Your task to perform on an android device: Search for asus zenbook on newegg, select the first entry, and add it to the cart. Image 0: 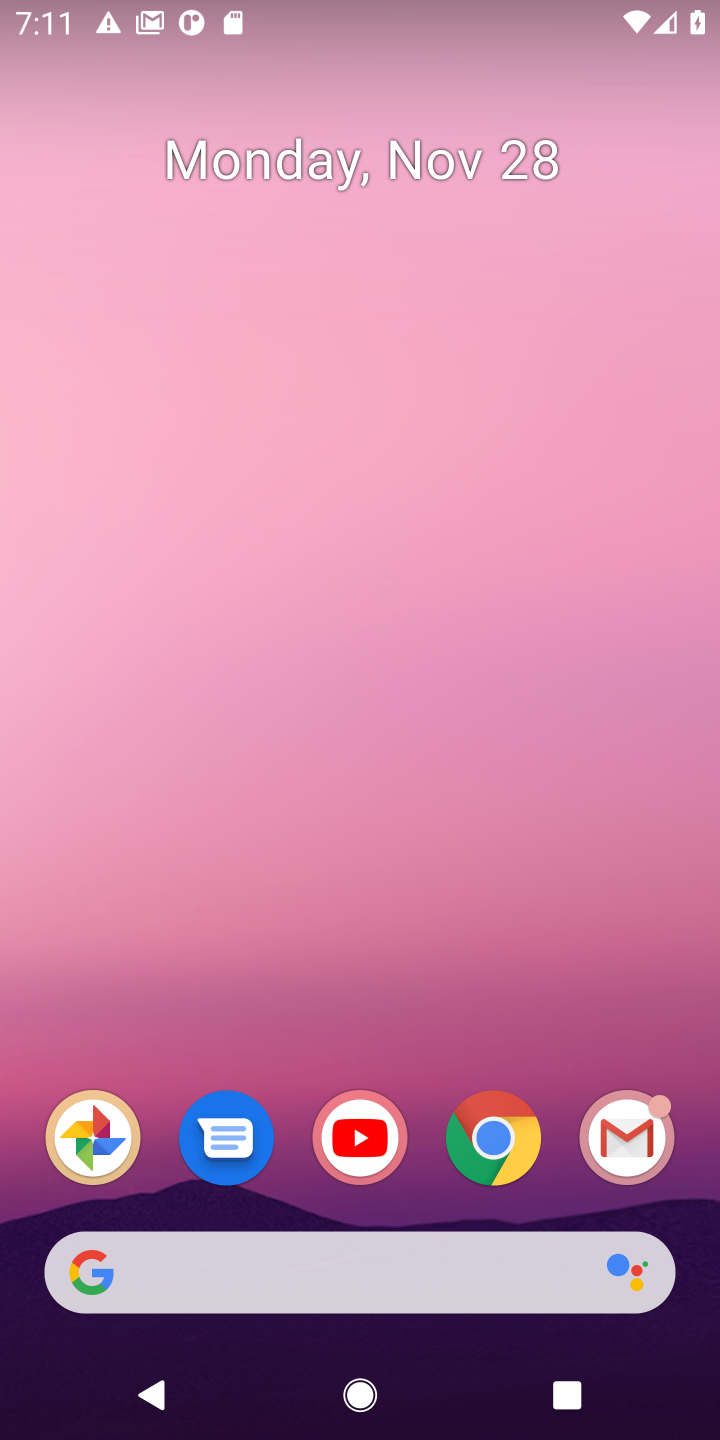
Step 0: click (483, 1146)
Your task to perform on an android device: Search for asus zenbook on newegg, select the first entry, and add it to the cart. Image 1: 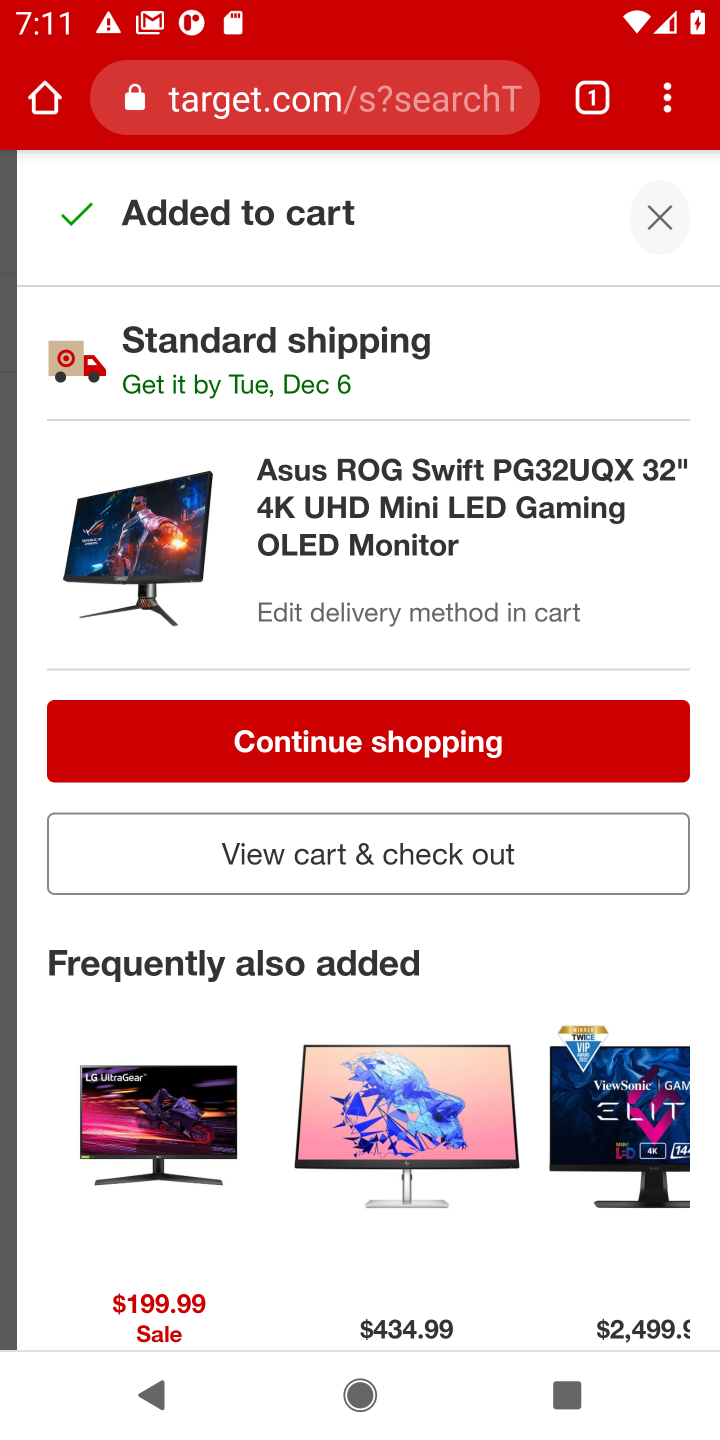
Step 1: click (262, 104)
Your task to perform on an android device: Search for asus zenbook on newegg, select the first entry, and add it to the cart. Image 2: 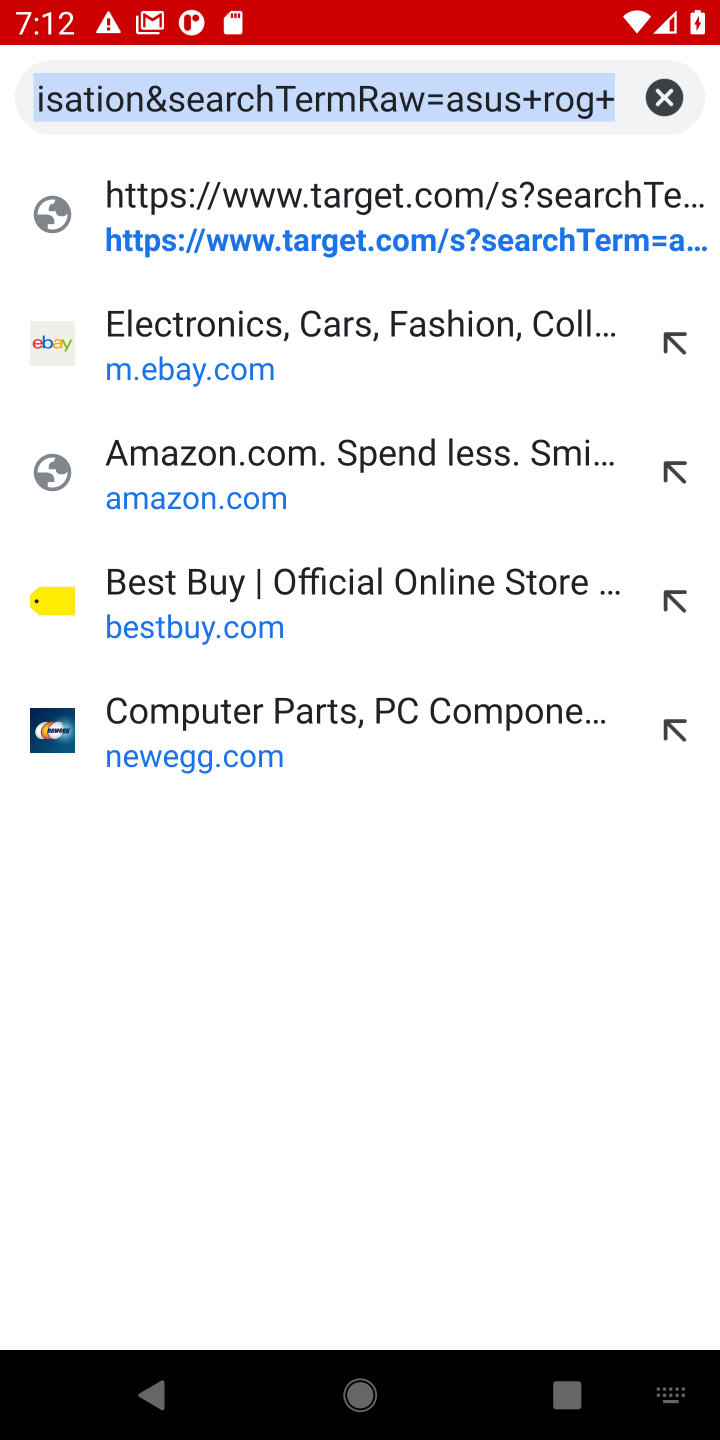
Step 2: click (156, 749)
Your task to perform on an android device: Search for asus zenbook on newegg, select the first entry, and add it to the cart. Image 3: 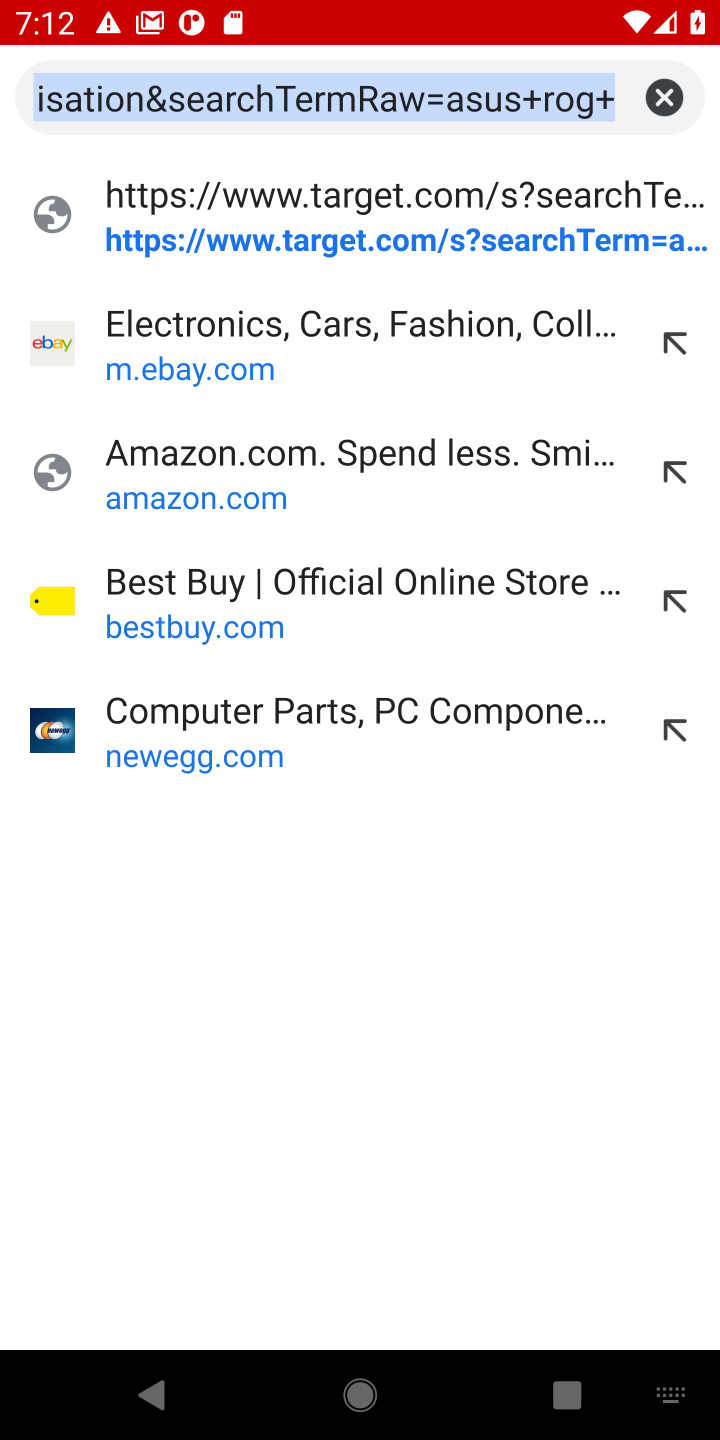
Step 3: click (125, 758)
Your task to perform on an android device: Search for asus zenbook on newegg, select the first entry, and add it to the cart. Image 4: 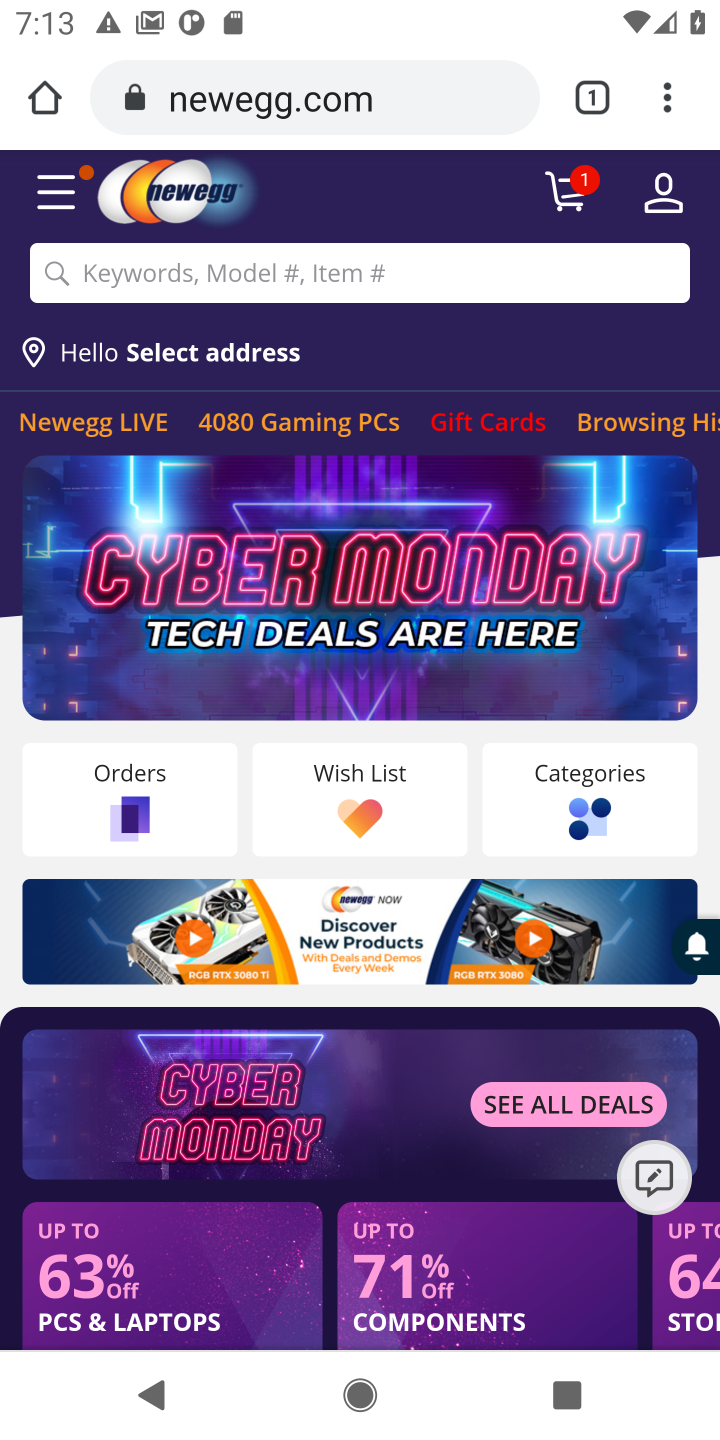
Step 4: click (155, 272)
Your task to perform on an android device: Search for asus zenbook on newegg, select the first entry, and add it to the cart. Image 5: 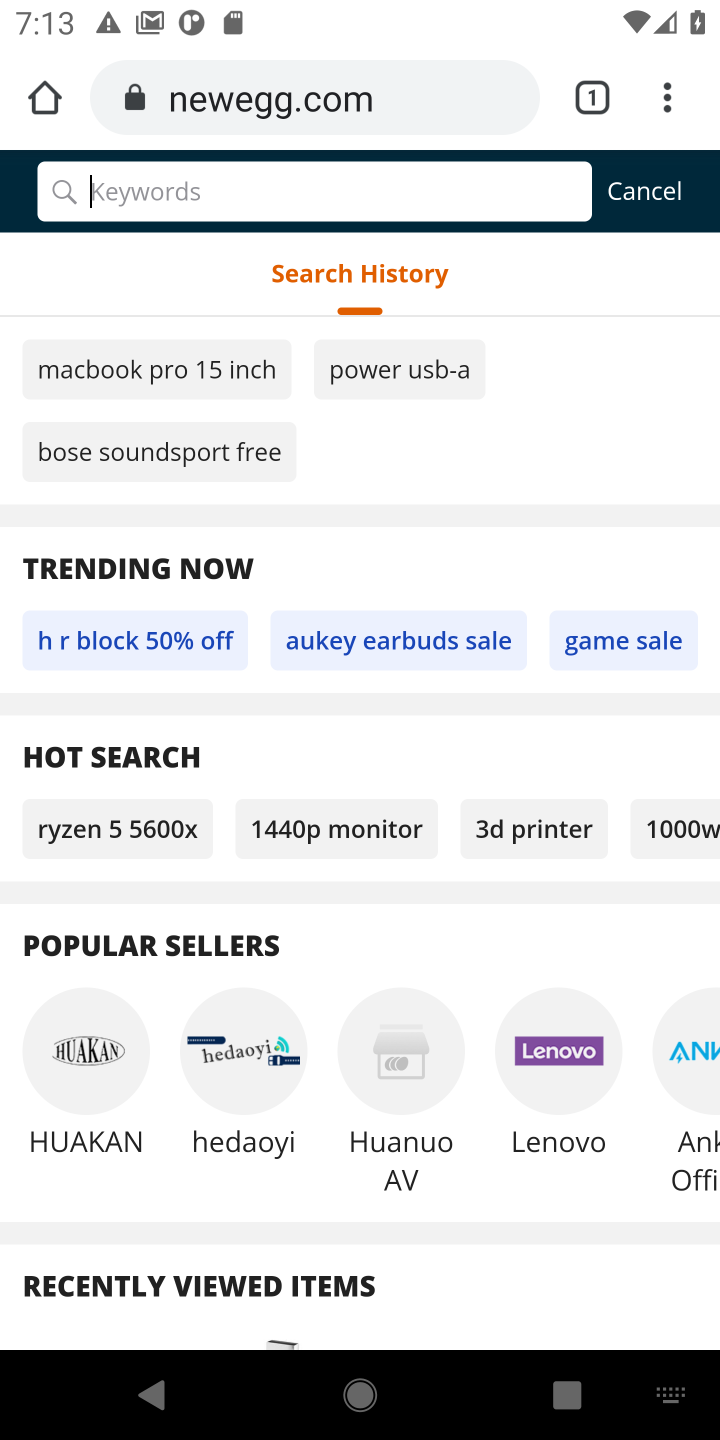
Step 5: type "asus zenbook "
Your task to perform on an android device: Search for asus zenbook on newegg, select the first entry, and add it to the cart. Image 6: 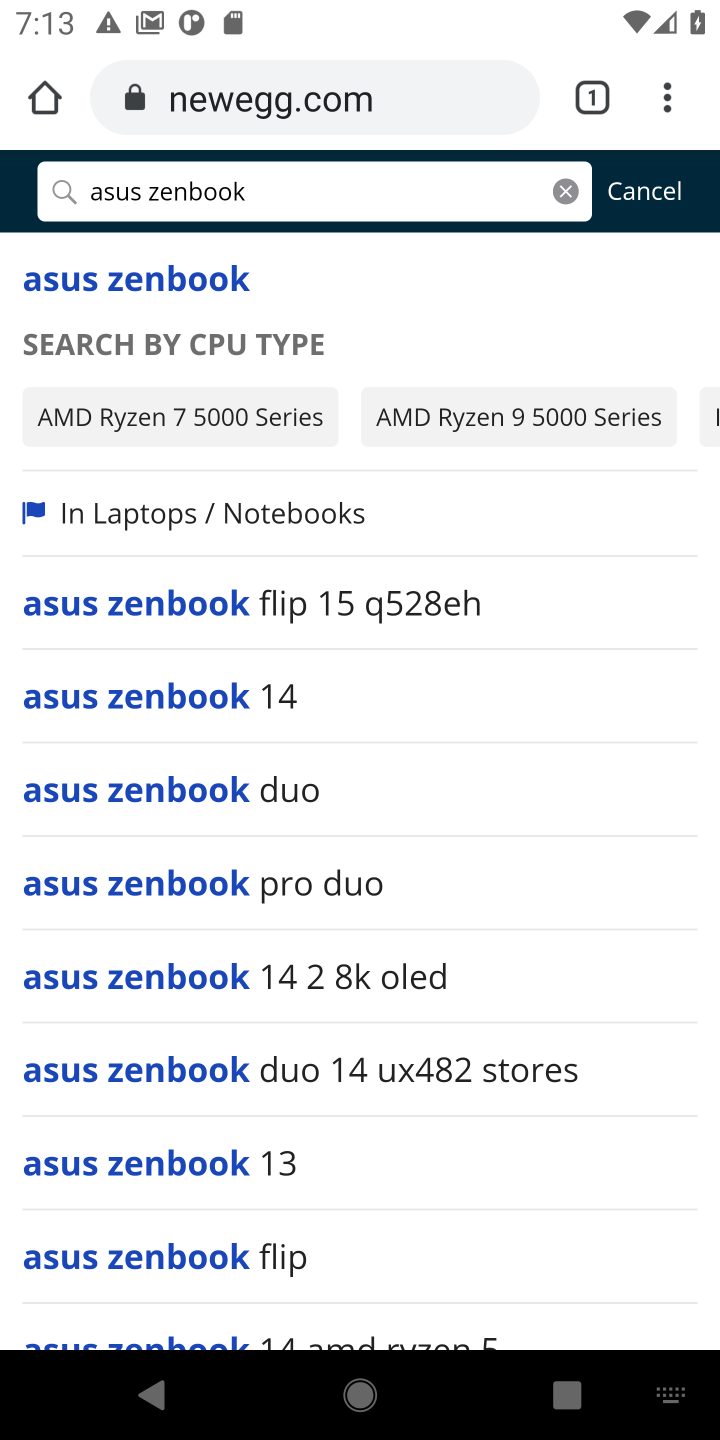
Step 6: click (80, 290)
Your task to perform on an android device: Search for asus zenbook on newegg, select the first entry, and add it to the cart. Image 7: 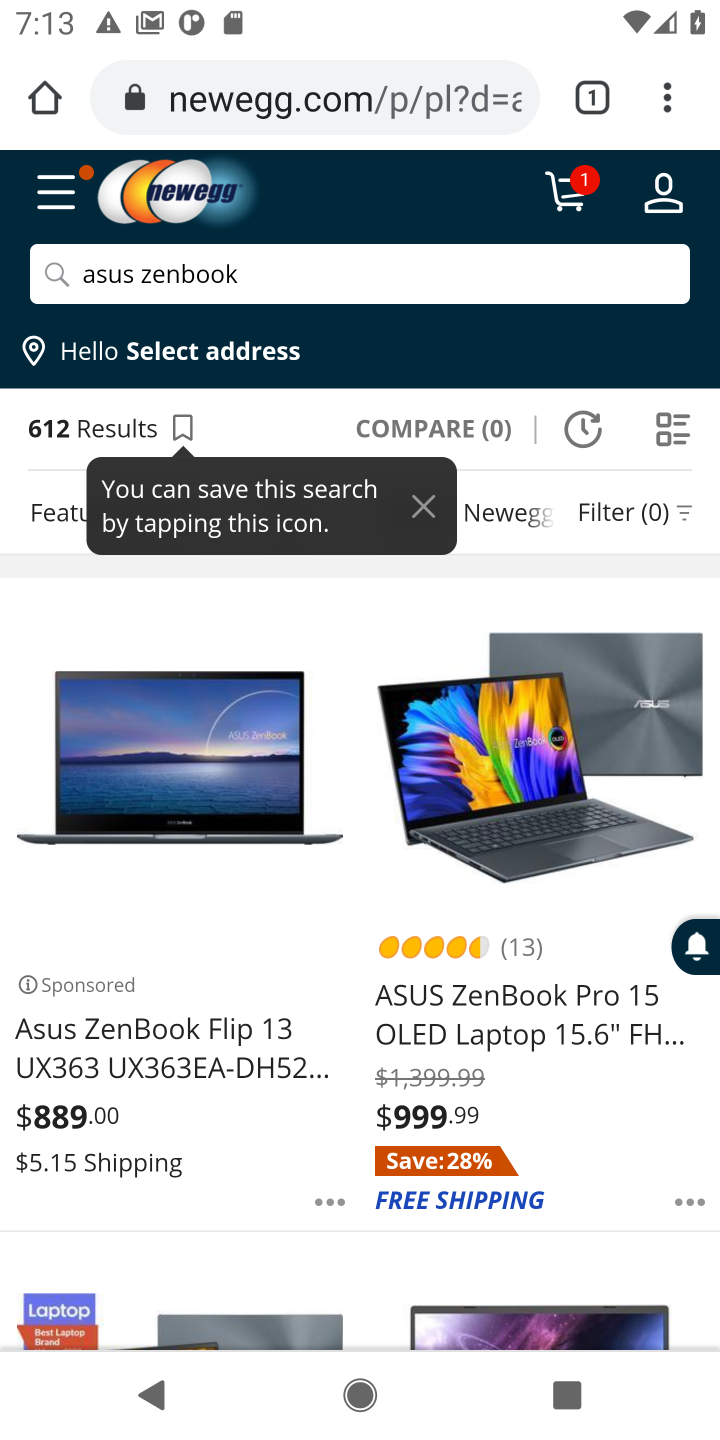
Step 7: click (131, 1033)
Your task to perform on an android device: Search for asus zenbook on newegg, select the first entry, and add it to the cart. Image 8: 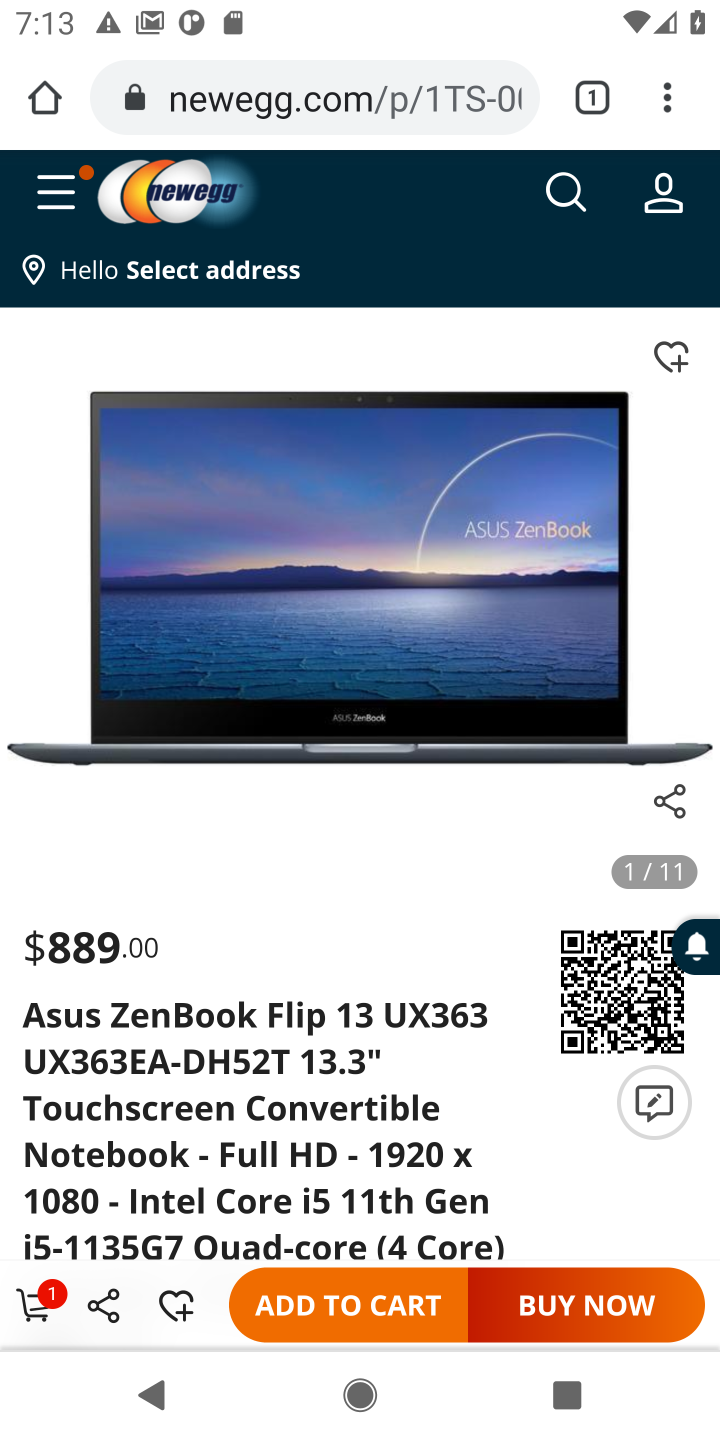
Step 8: click (333, 1297)
Your task to perform on an android device: Search for asus zenbook on newegg, select the first entry, and add it to the cart. Image 9: 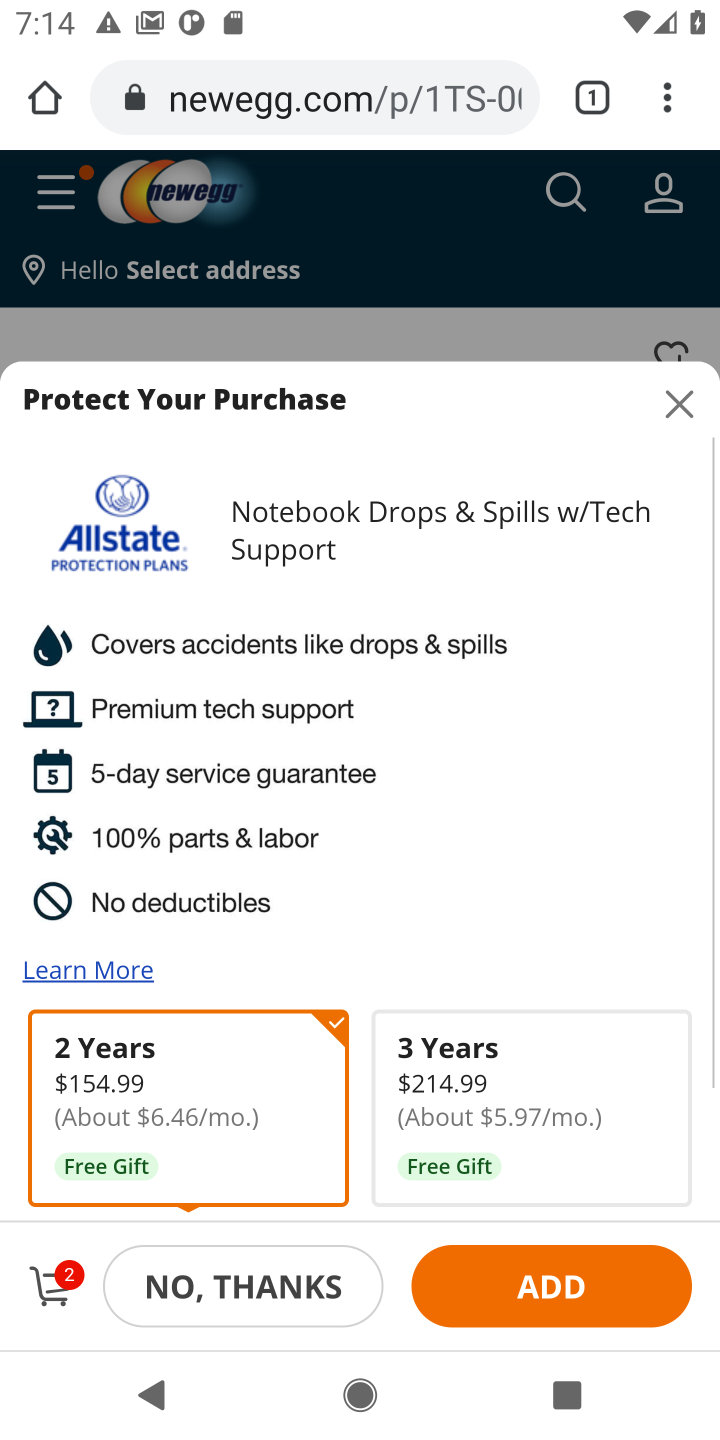
Step 9: task complete